Your task to perform on an android device: change alarm snooze length Image 0: 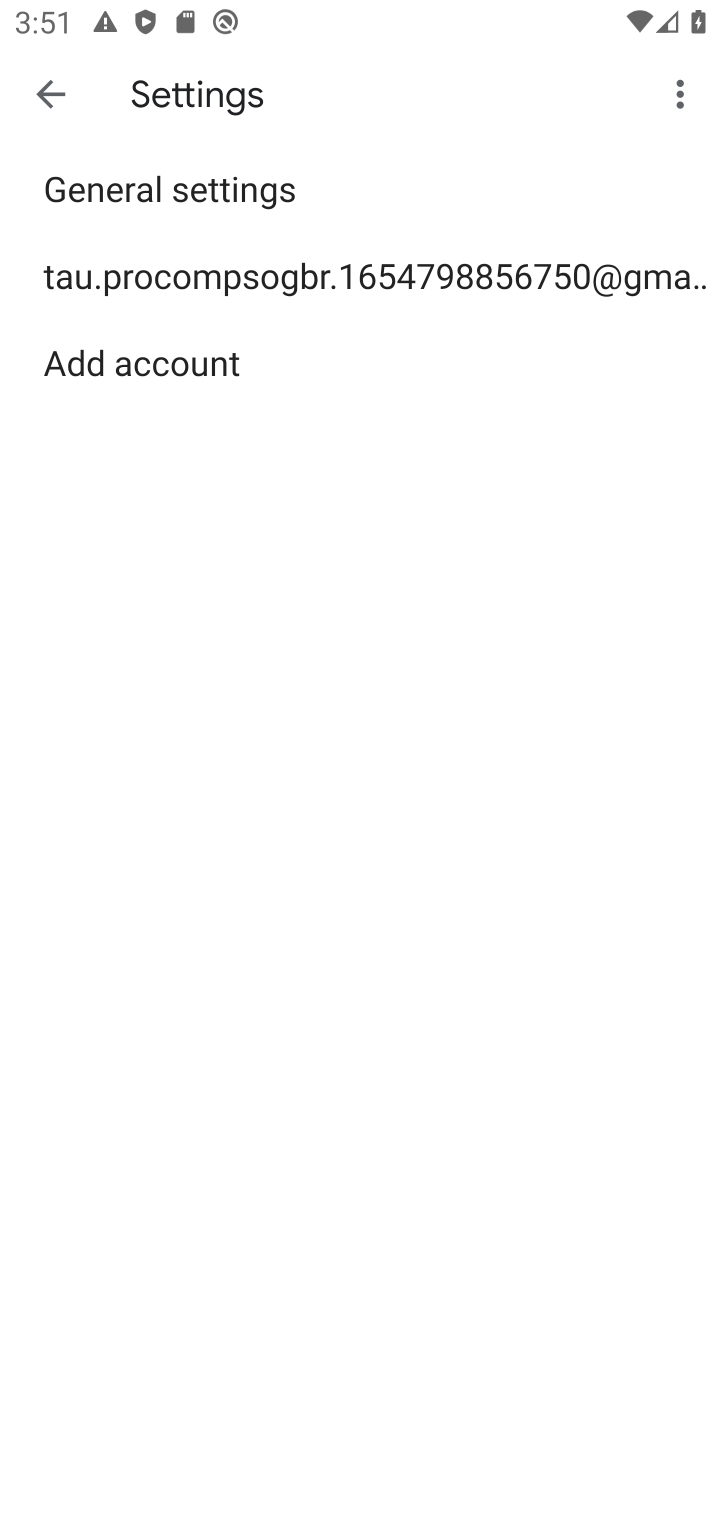
Step 0: press home button
Your task to perform on an android device: change alarm snooze length Image 1: 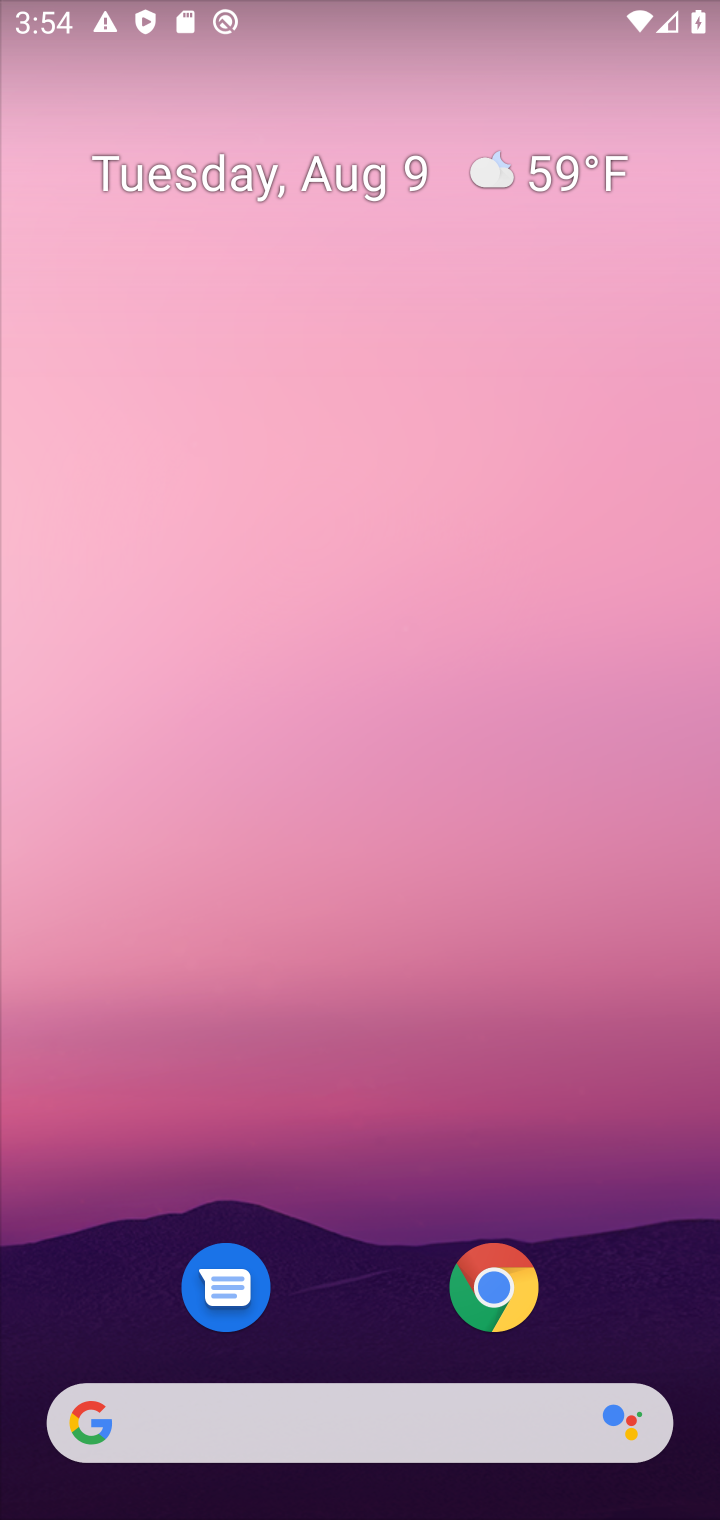
Step 1: drag from (368, 1122) to (379, 189)
Your task to perform on an android device: change alarm snooze length Image 2: 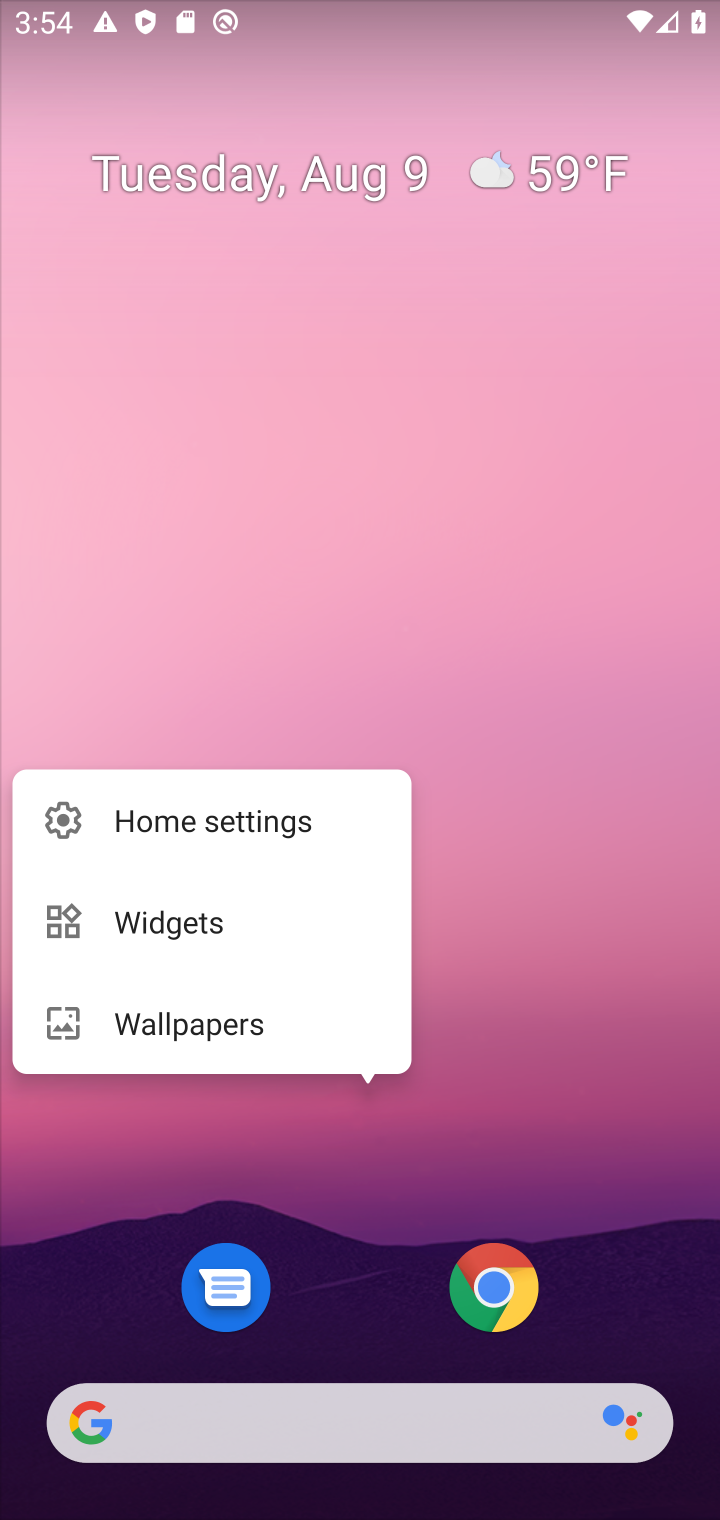
Step 2: click (544, 916)
Your task to perform on an android device: change alarm snooze length Image 3: 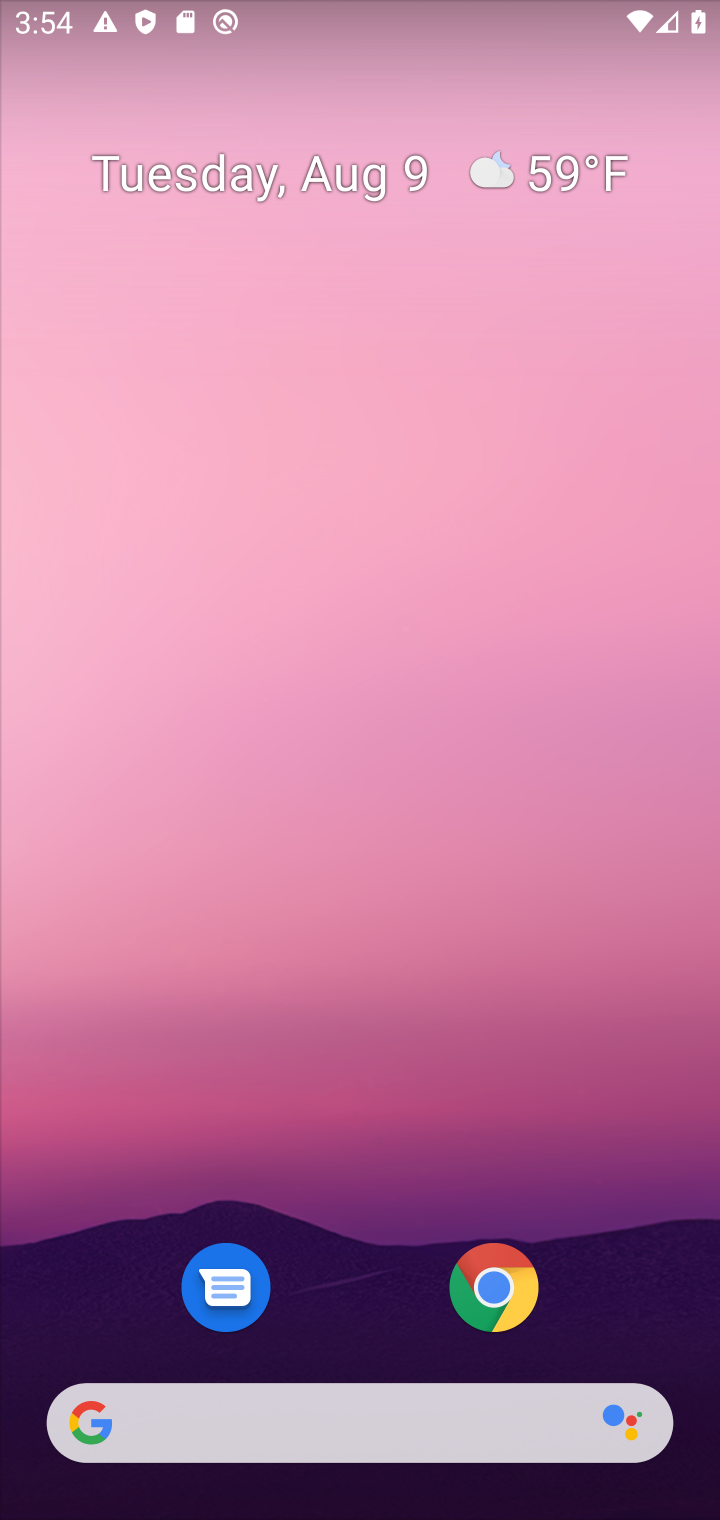
Step 3: drag from (347, 1033) to (298, 67)
Your task to perform on an android device: change alarm snooze length Image 4: 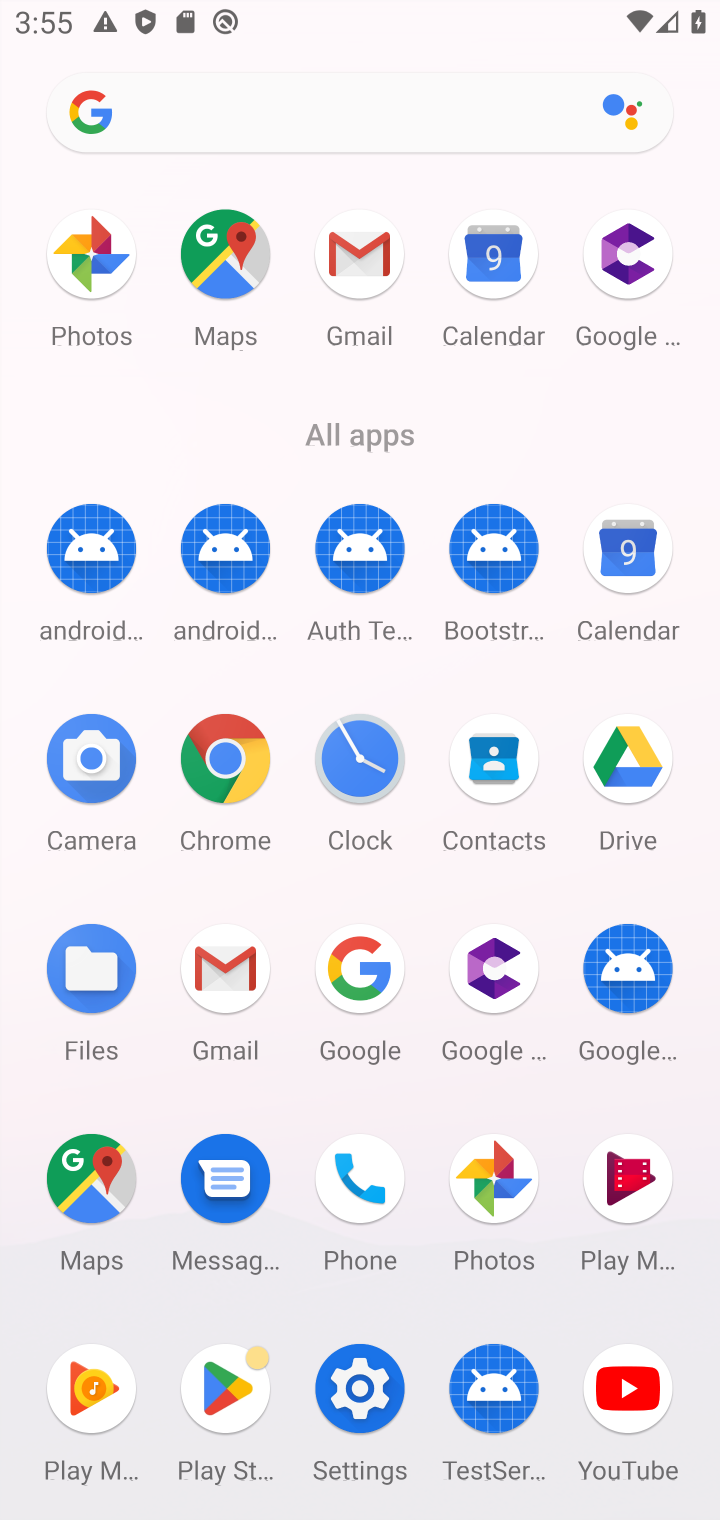
Step 4: click (372, 771)
Your task to perform on an android device: change alarm snooze length Image 5: 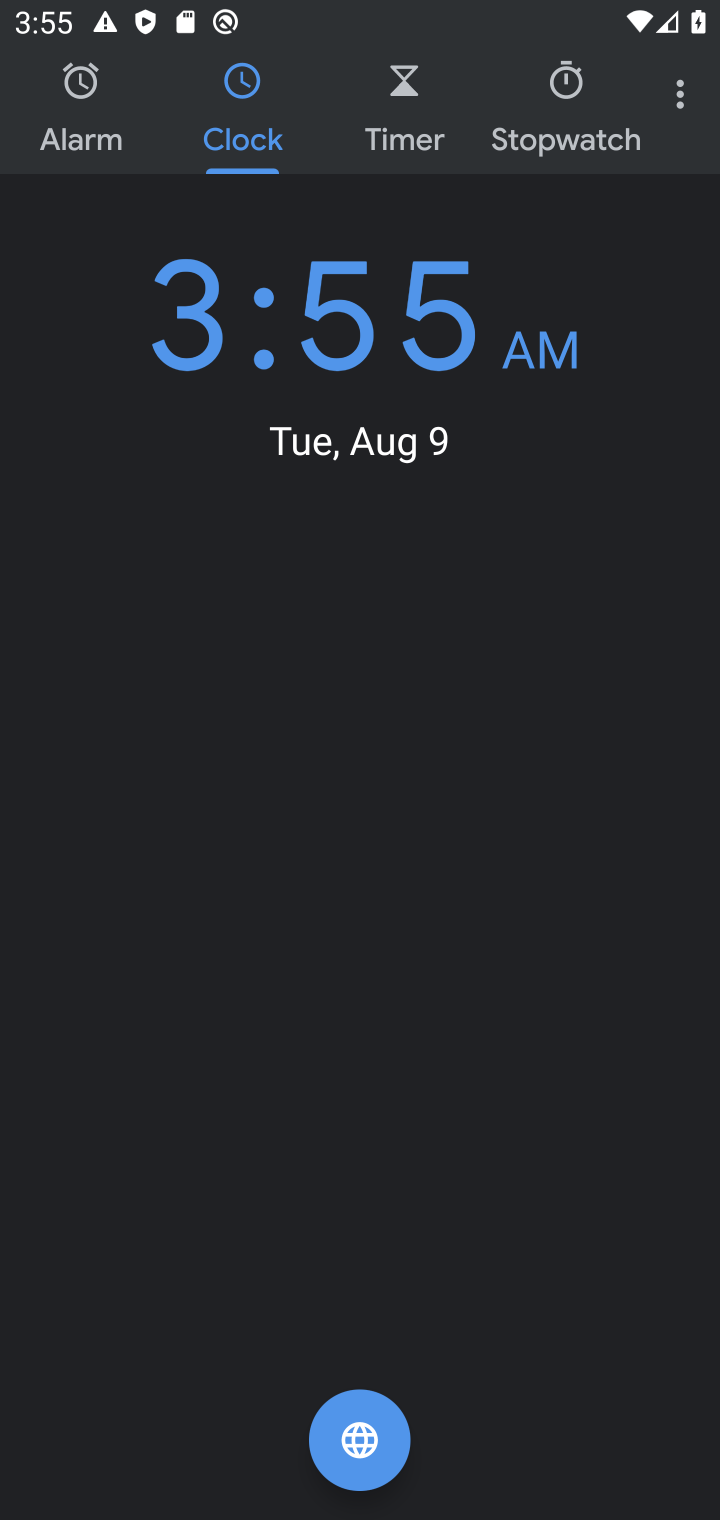
Step 5: click (682, 109)
Your task to perform on an android device: change alarm snooze length Image 6: 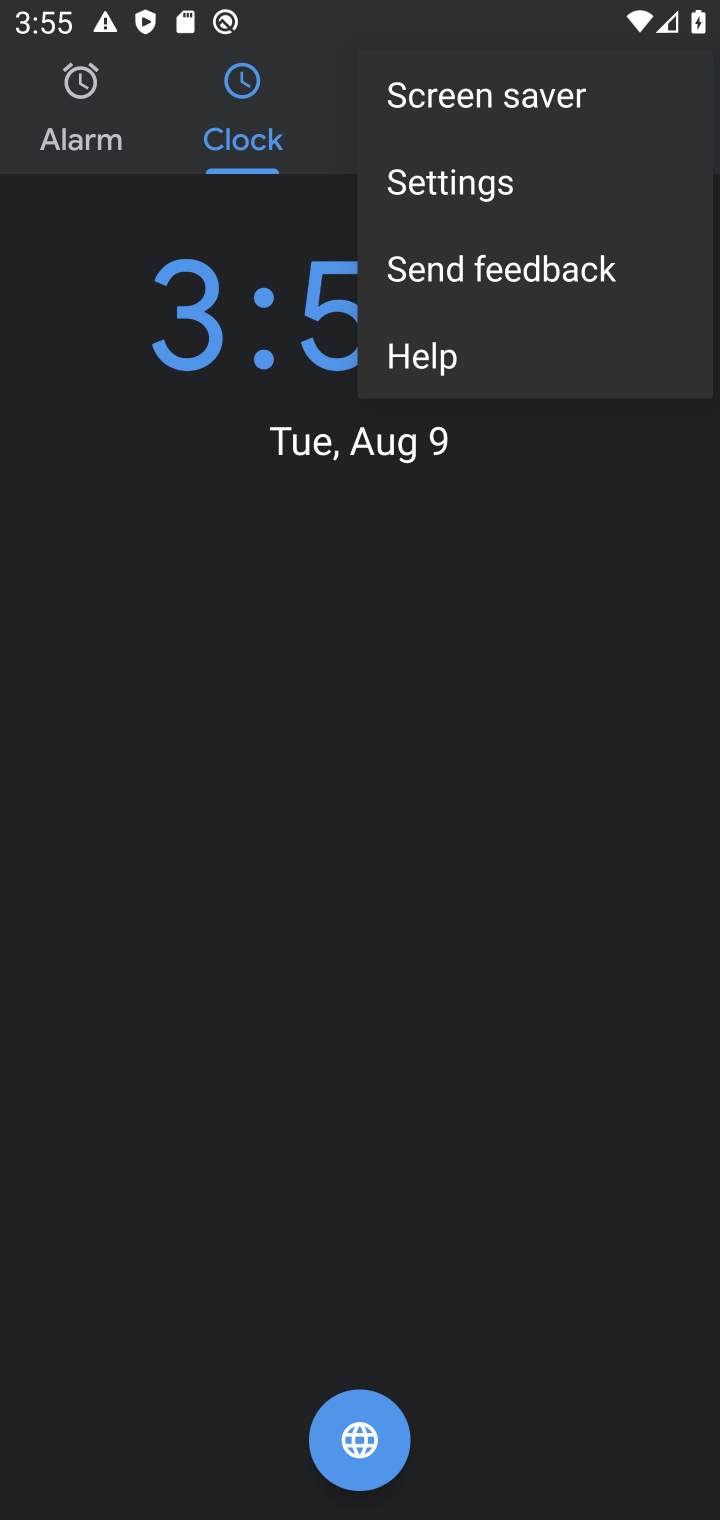
Step 6: click (499, 190)
Your task to perform on an android device: change alarm snooze length Image 7: 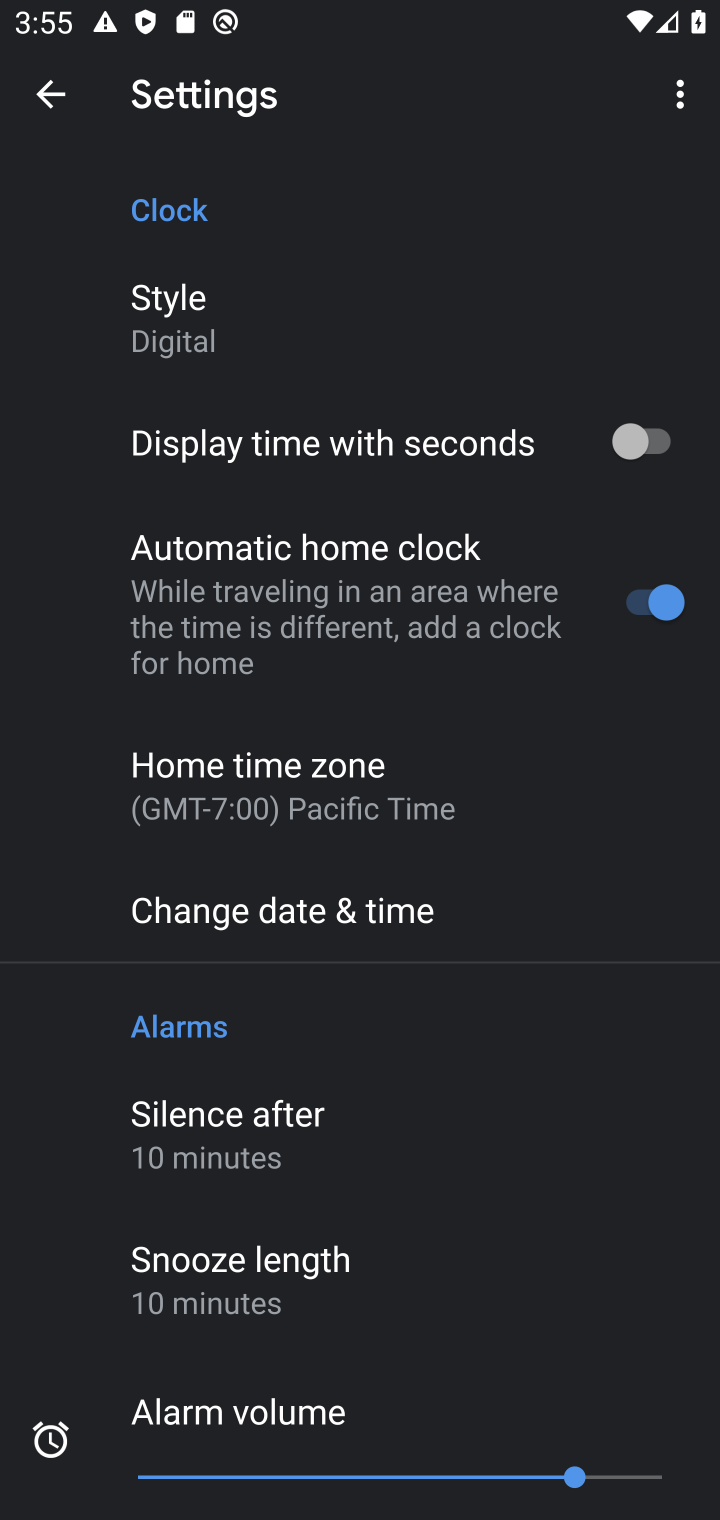
Step 7: click (221, 1273)
Your task to perform on an android device: change alarm snooze length Image 8: 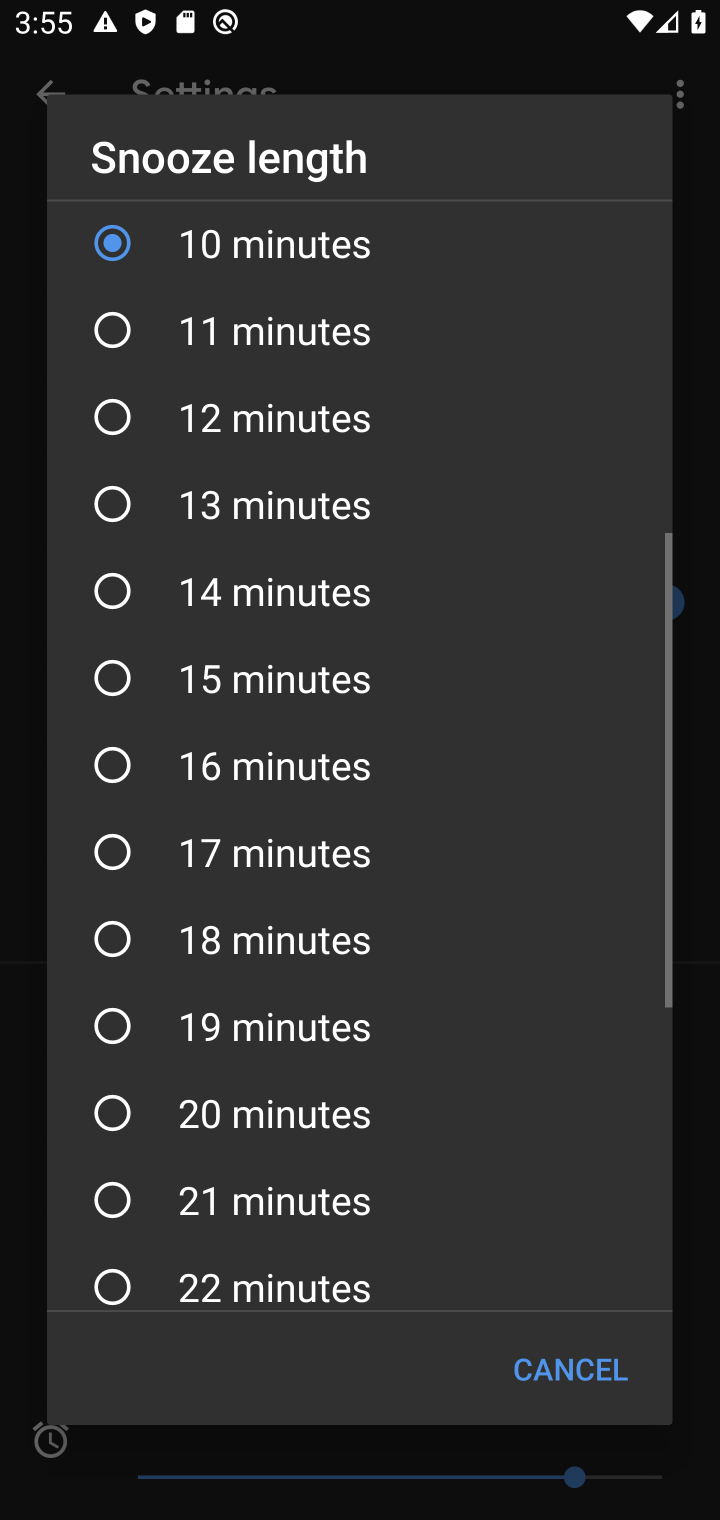
Step 8: click (150, 589)
Your task to perform on an android device: change alarm snooze length Image 9: 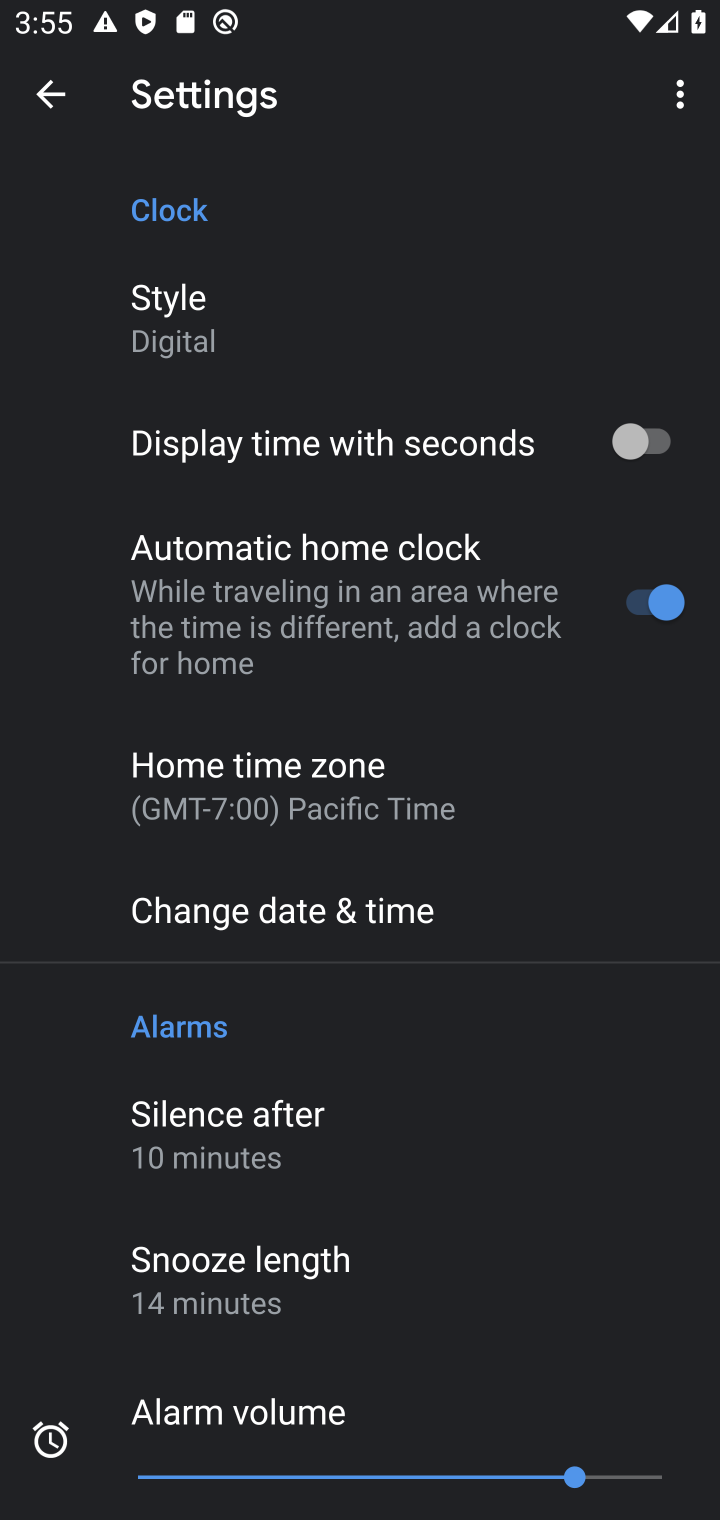
Step 9: task complete